Your task to perform on an android device: turn off notifications in google photos Image 0: 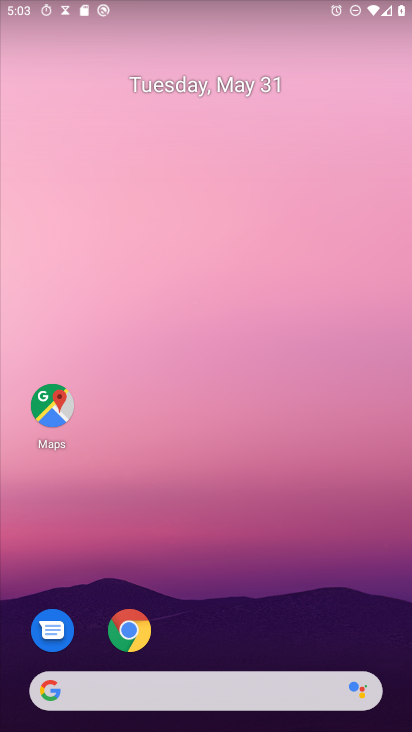
Step 0: click (375, 215)
Your task to perform on an android device: turn off notifications in google photos Image 1: 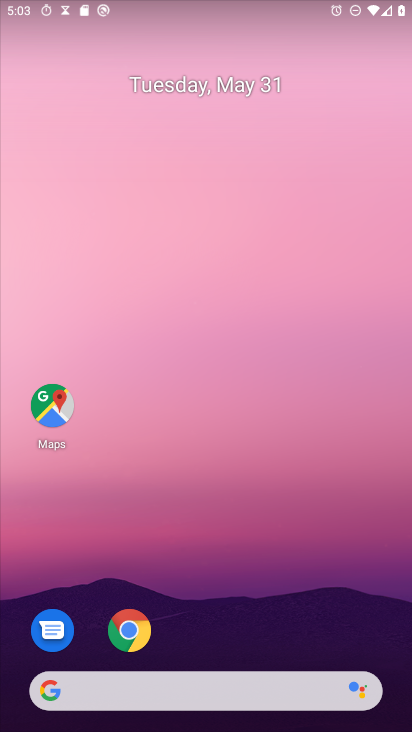
Step 1: drag from (296, 722) to (334, 29)
Your task to perform on an android device: turn off notifications in google photos Image 2: 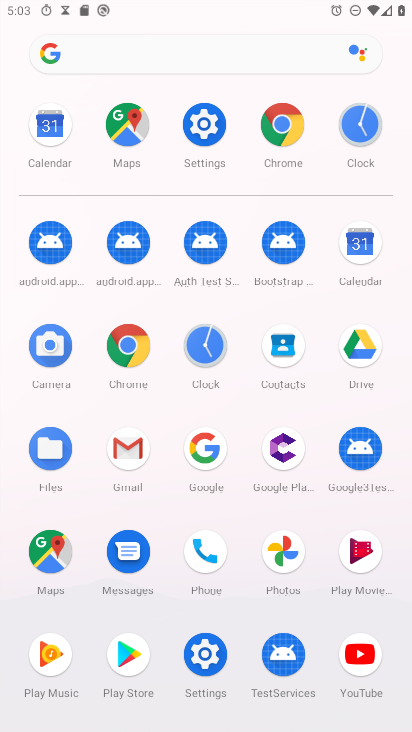
Step 2: click (298, 560)
Your task to perform on an android device: turn off notifications in google photos Image 3: 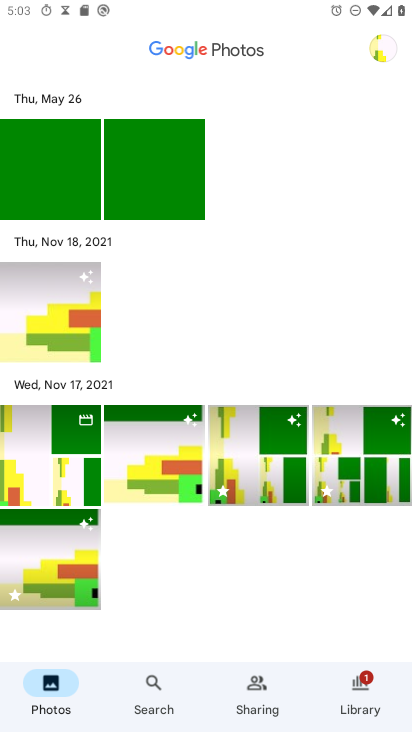
Step 3: click (392, 57)
Your task to perform on an android device: turn off notifications in google photos Image 4: 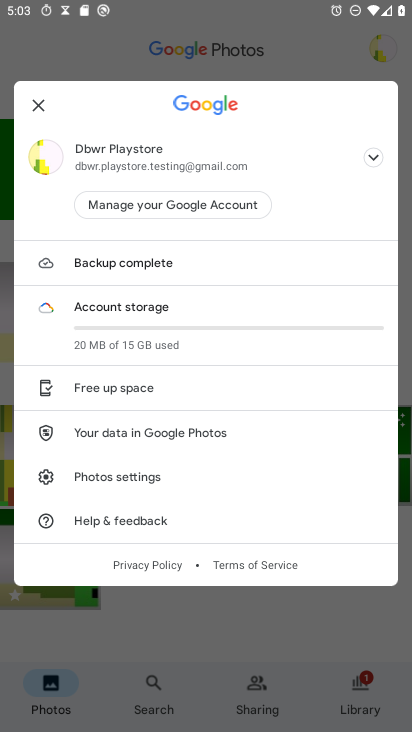
Step 4: click (123, 471)
Your task to perform on an android device: turn off notifications in google photos Image 5: 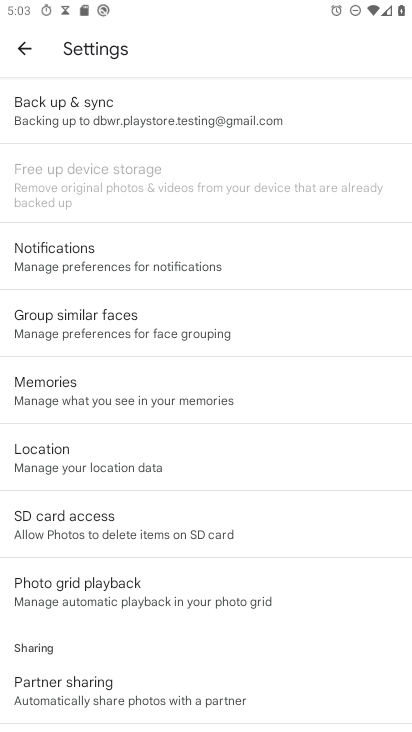
Step 5: click (266, 104)
Your task to perform on an android device: turn off notifications in google photos Image 6: 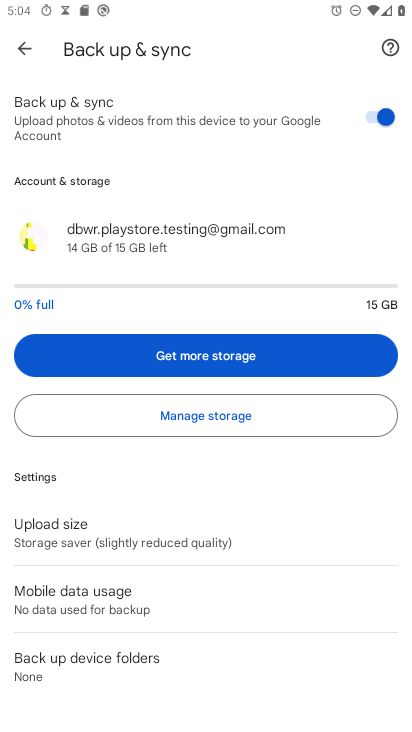
Step 6: drag from (140, 661) to (160, 67)
Your task to perform on an android device: turn off notifications in google photos Image 7: 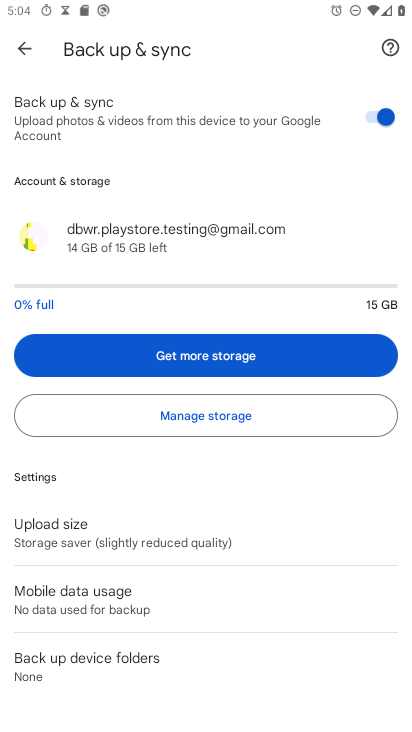
Step 7: drag from (160, 644) to (221, 135)
Your task to perform on an android device: turn off notifications in google photos Image 8: 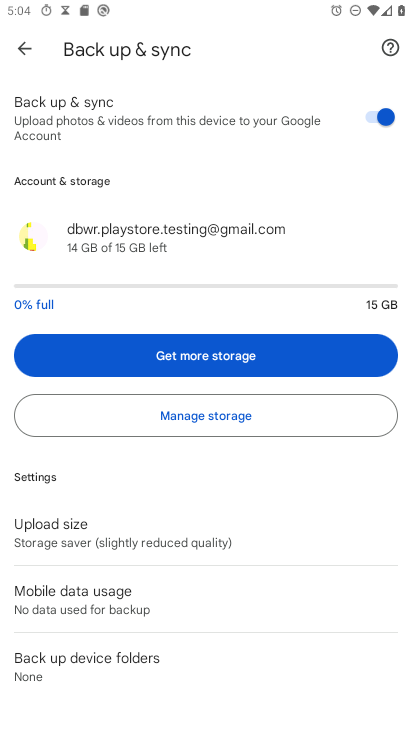
Step 8: press back button
Your task to perform on an android device: turn off notifications in google photos Image 9: 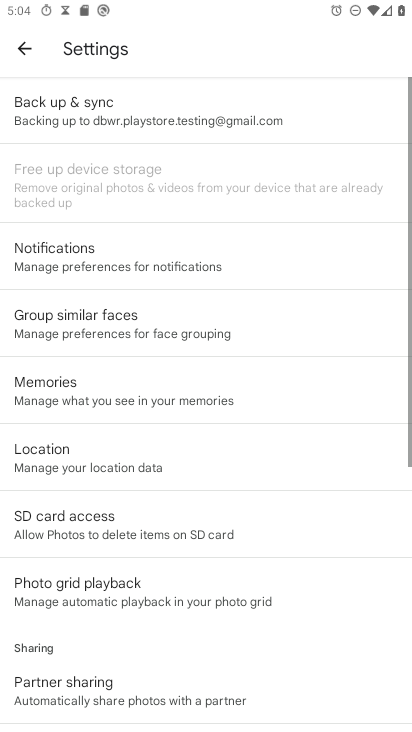
Step 9: click (176, 256)
Your task to perform on an android device: turn off notifications in google photos Image 10: 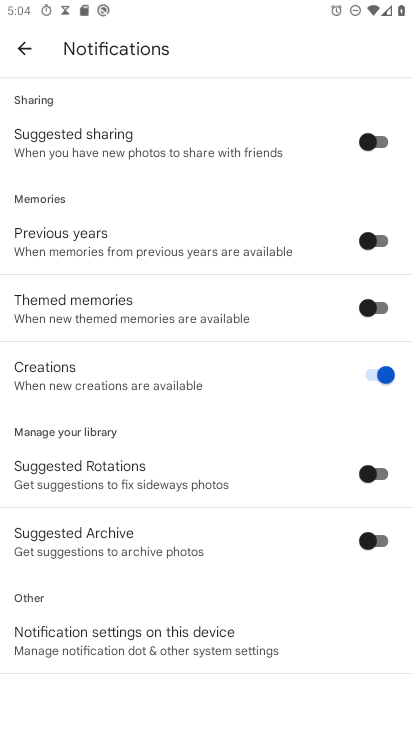
Step 10: click (257, 635)
Your task to perform on an android device: turn off notifications in google photos Image 11: 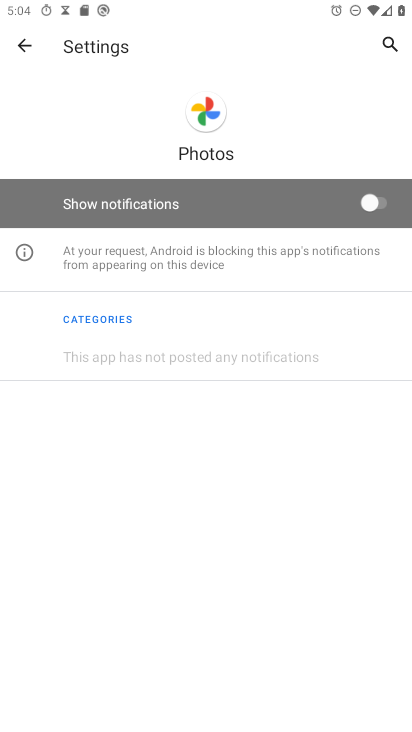
Step 11: task complete